Your task to perform on an android device: toggle sleep mode Image 0: 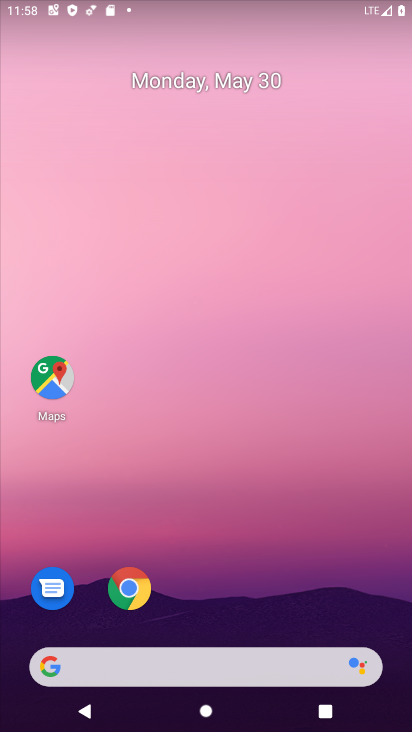
Step 0: drag from (202, 622) to (250, 1)
Your task to perform on an android device: toggle sleep mode Image 1: 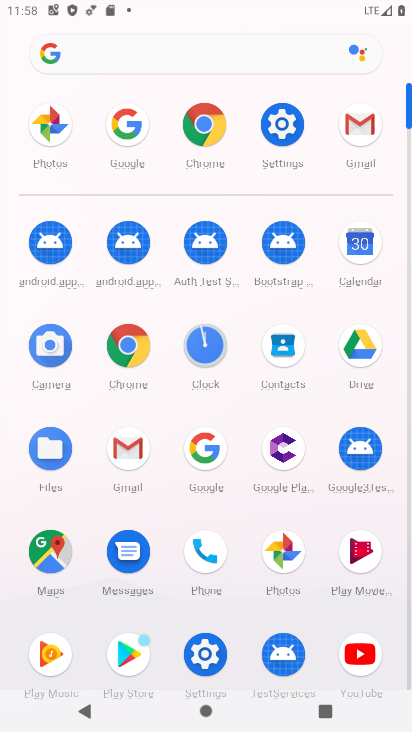
Step 1: click (282, 120)
Your task to perform on an android device: toggle sleep mode Image 2: 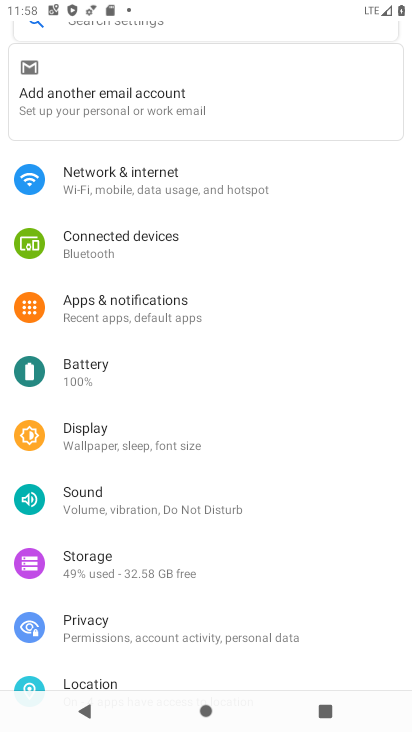
Step 2: click (112, 438)
Your task to perform on an android device: toggle sleep mode Image 3: 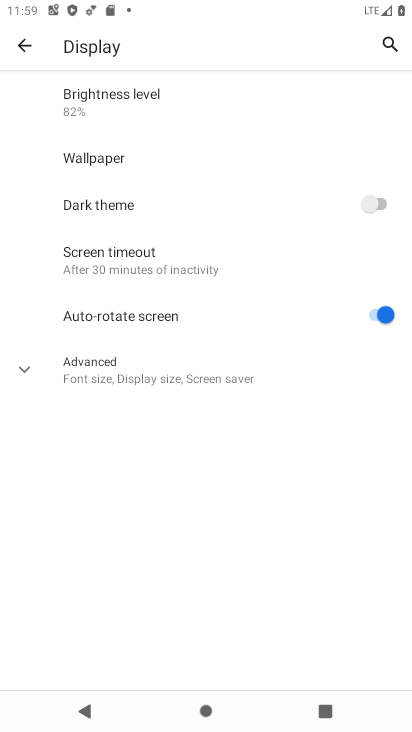
Step 3: click (73, 375)
Your task to perform on an android device: toggle sleep mode Image 4: 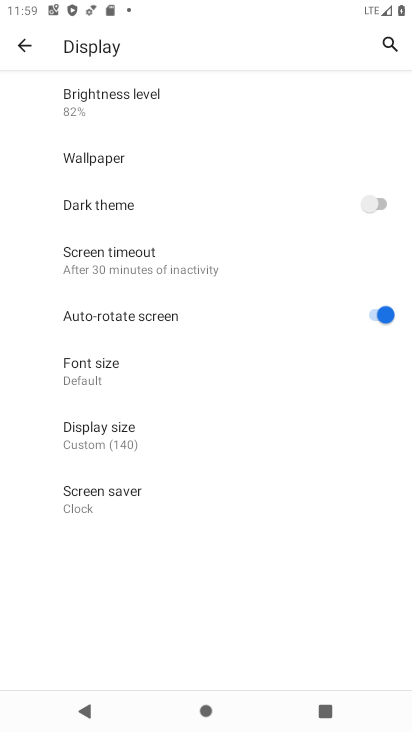
Step 4: task complete